Your task to perform on an android device: see creations saved in the google photos Image 0: 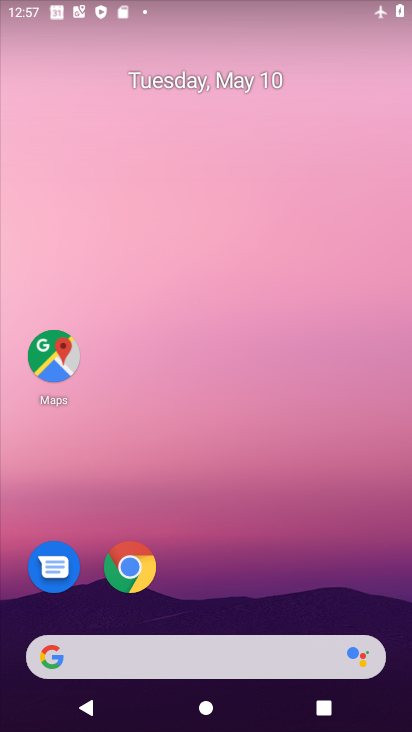
Step 0: drag from (399, 616) to (265, 88)
Your task to perform on an android device: see creations saved in the google photos Image 1: 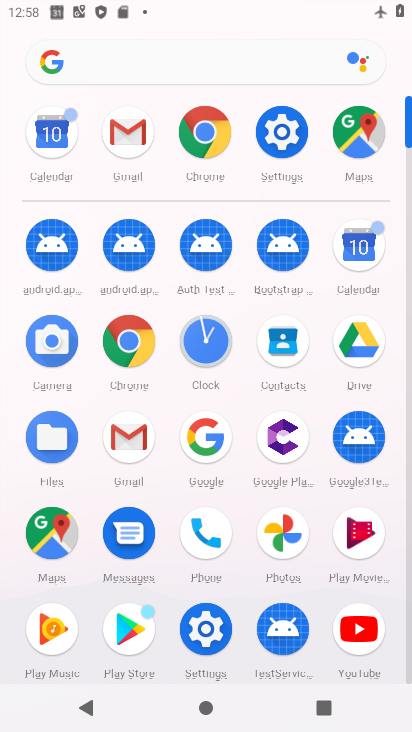
Step 1: click (281, 545)
Your task to perform on an android device: see creations saved in the google photos Image 2: 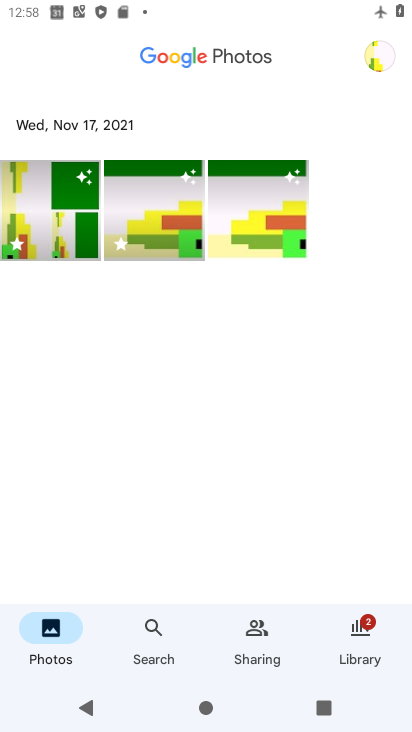
Step 2: click (378, 56)
Your task to perform on an android device: see creations saved in the google photos Image 3: 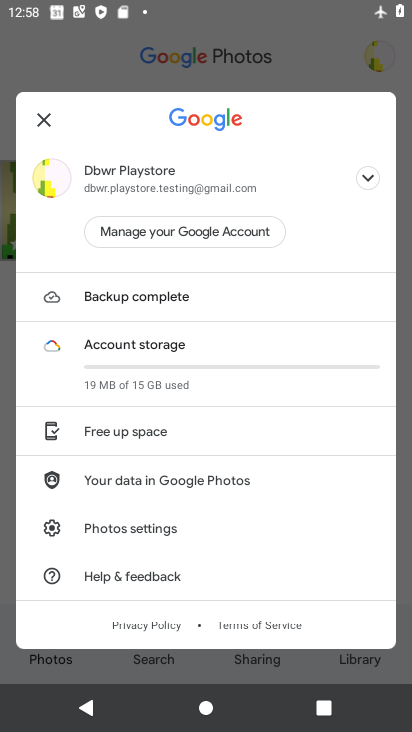
Step 3: press back button
Your task to perform on an android device: see creations saved in the google photos Image 4: 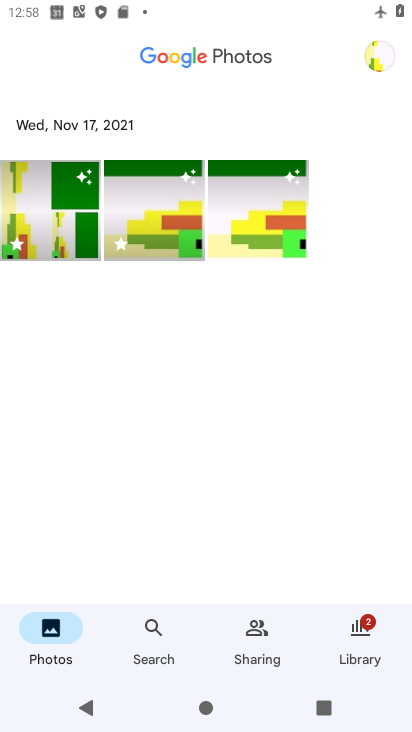
Step 4: click (167, 638)
Your task to perform on an android device: see creations saved in the google photos Image 5: 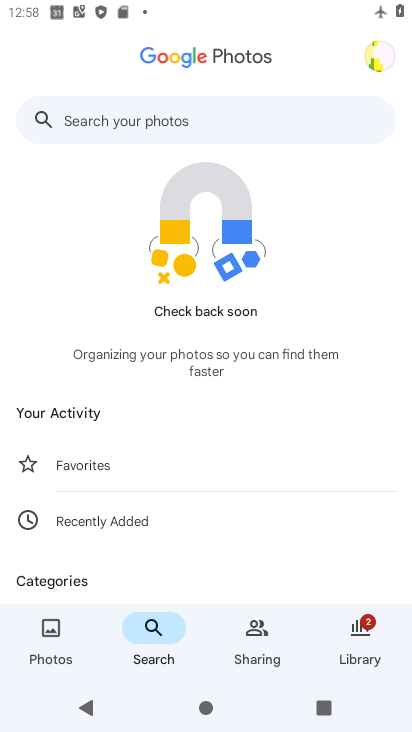
Step 5: drag from (96, 517) to (120, 89)
Your task to perform on an android device: see creations saved in the google photos Image 6: 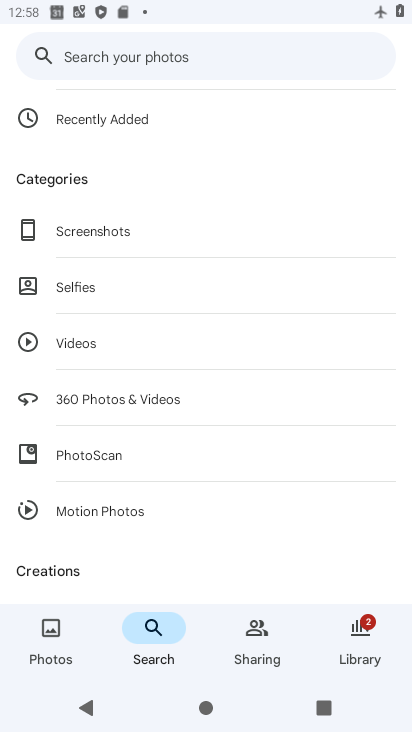
Step 6: drag from (66, 539) to (112, 299)
Your task to perform on an android device: see creations saved in the google photos Image 7: 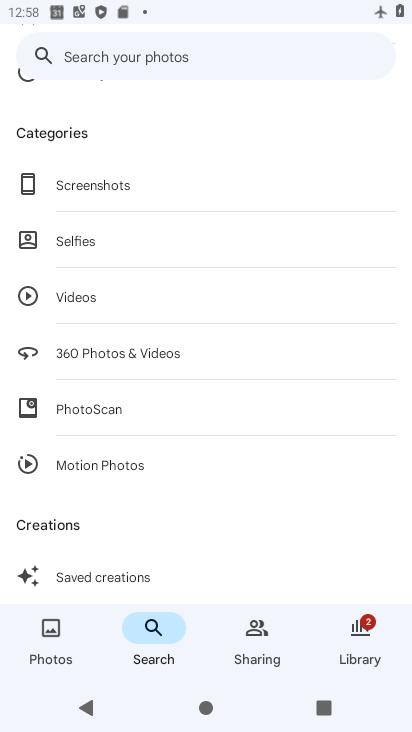
Step 7: click (76, 539)
Your task to perform on an android device: see creations saved in the google photos Image 8: 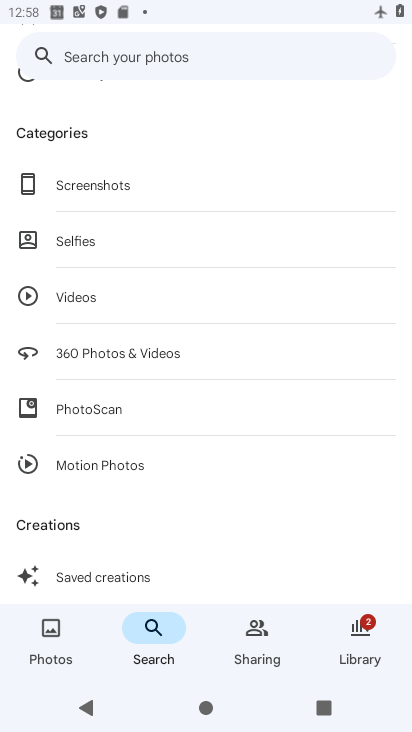
Step 8: click (75, 562)
Your task to perform on an android device: see creations saved in the google photos Image 9: 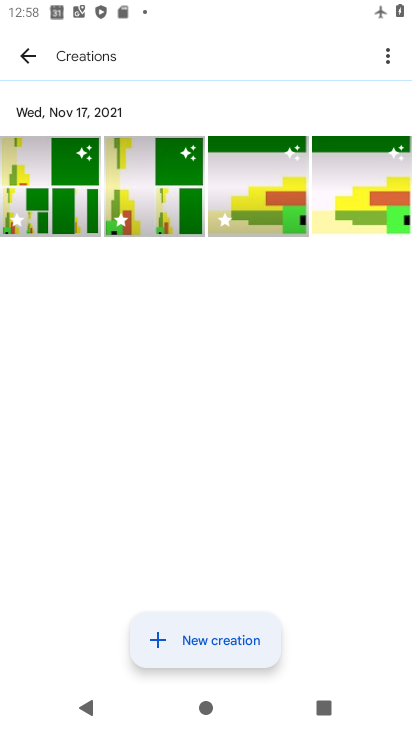
Step 9: task complete